Your task to perform on an android device: see creations saved in the google photos Image 0: 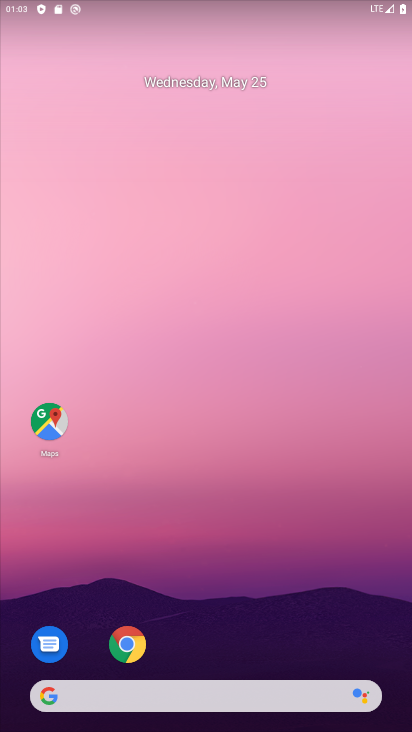
Step 0: drag from (319, 566) to (285, 5)
Your task to perform on an android device: see creations saved in the google photos Image 1: 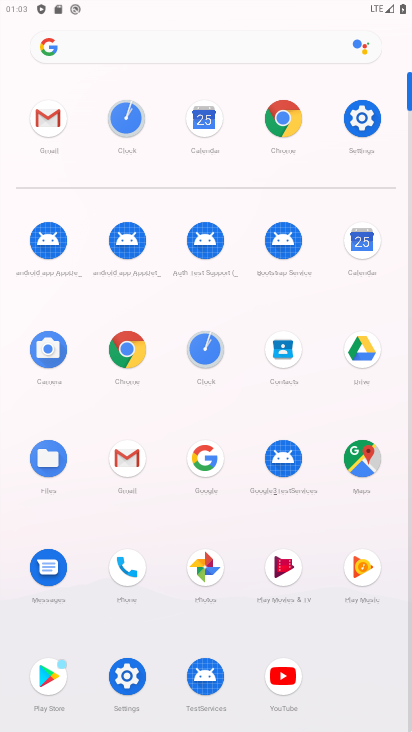
Step 1: click (209, 569)
Your task to perform on an android device: see creations saved in the google photos Image 2: 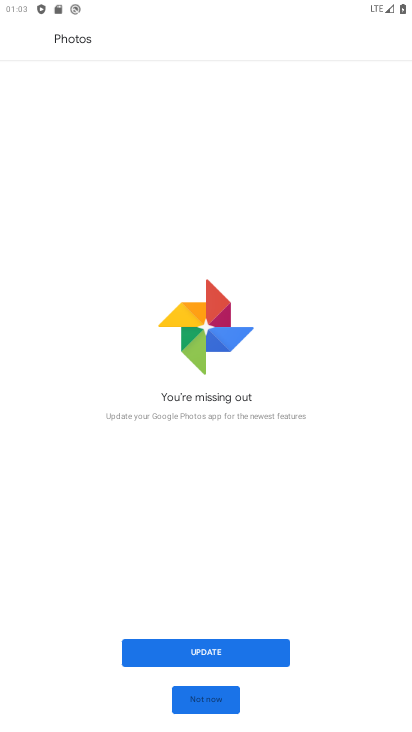
Step 2: click (191, 650)
Your task to perform on an android device: see creations saved in the google photos Image 3: 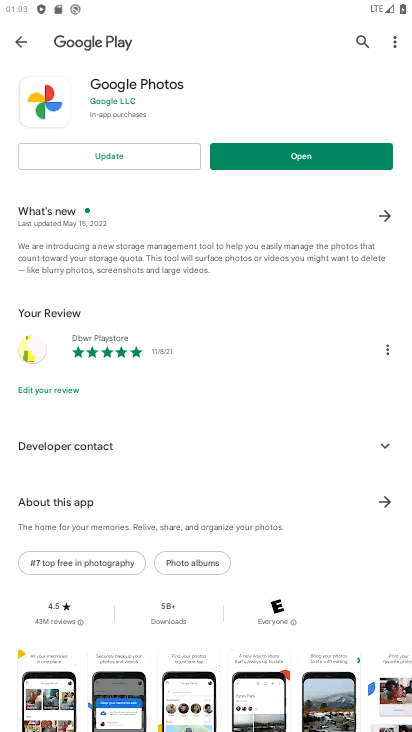
Step 3: click (160, 155)
Your task to perform on an android device: see creations saved in the google photos Image 4: 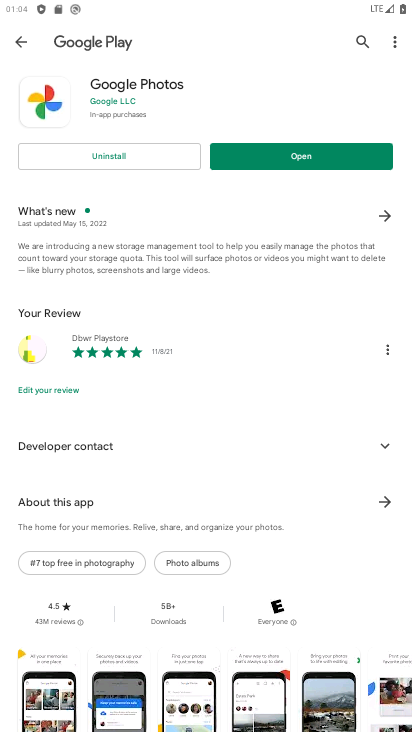
Step 4: click (293, 159)
Your task to perform on an android device: see creations saved in the google photos Image 5: 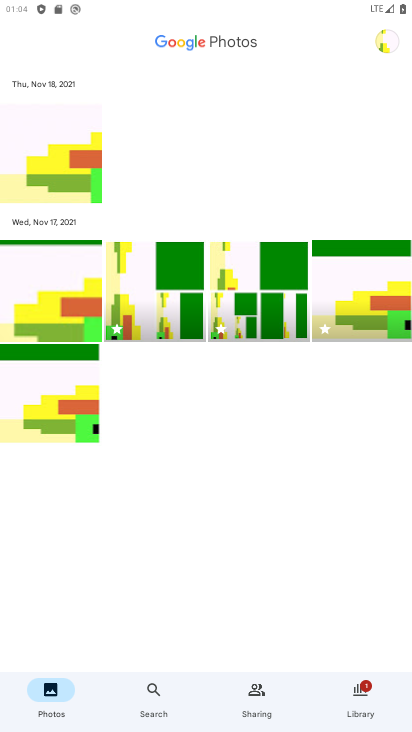
Step 5: click (149, 684)
Your task to perform on an android device: see creations saved in the google photos Image 6: 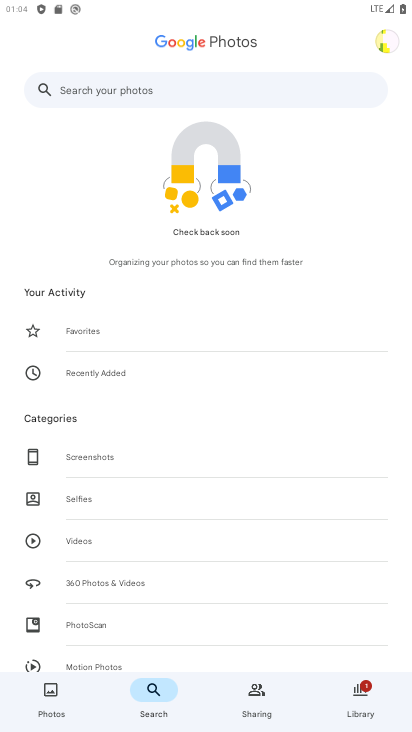
Step 6: click (116, 88)
Your task to perform on an android device: see creations saved in the google photos Image 7: 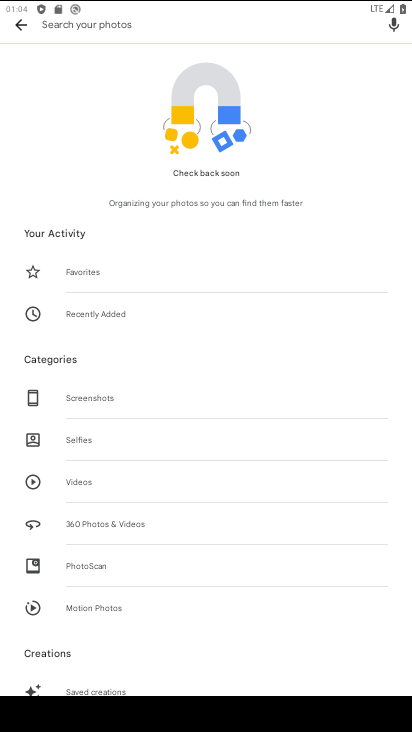
Step 7: type "creation"
Your task to perform on an android device: see creations saved in the google photos Image 8: 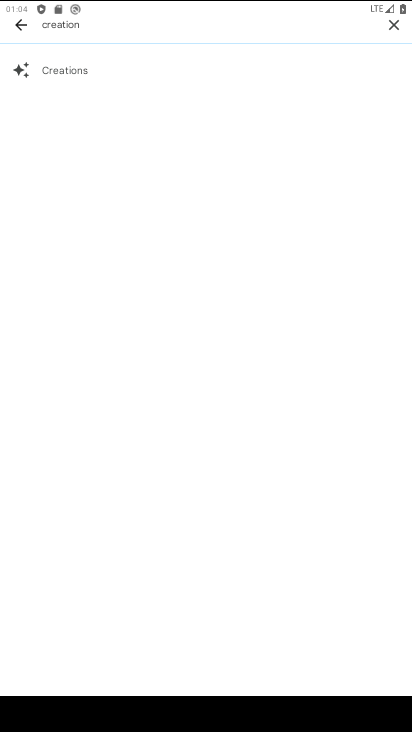
Step 8: click (54, 62)
Your task to perform on an android device: see creations saved in the google photos Image 9: 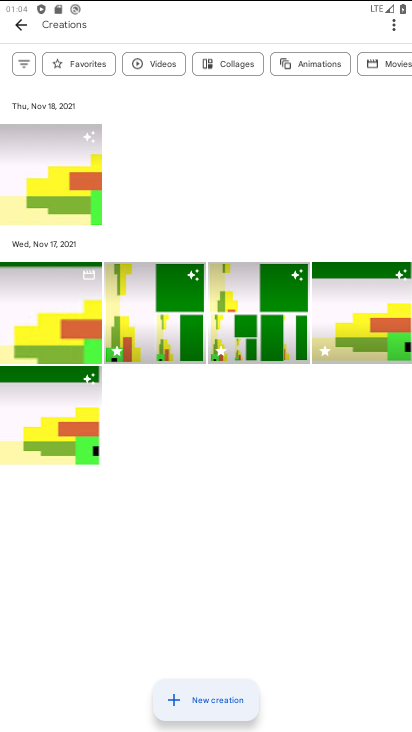
Step 9: task complete